Your task to perform on an android device: turn smart compose on in the gmail app Image 0: 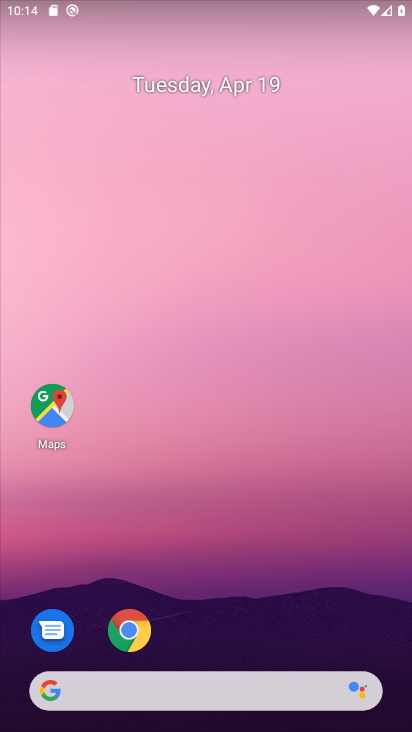
Step 0: drag from (254, 602) to (281, 163)
Your task to perform on an android device: turn smart compose on in the gmail app Image 1: 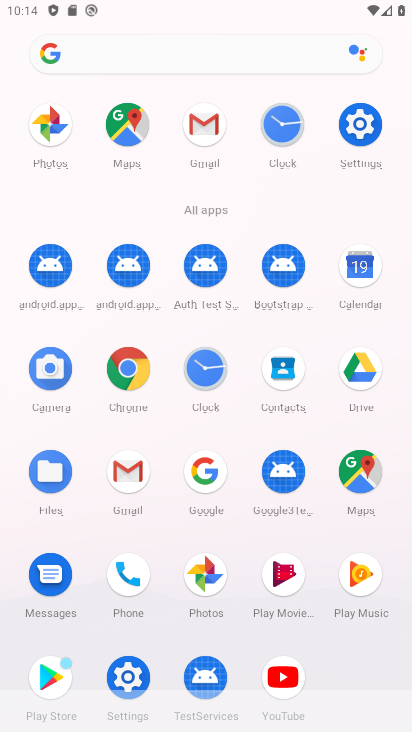
Step 1: click (192, 130)
Your task to perform on an android device: turn smart compose on in the gmail app Image 2: 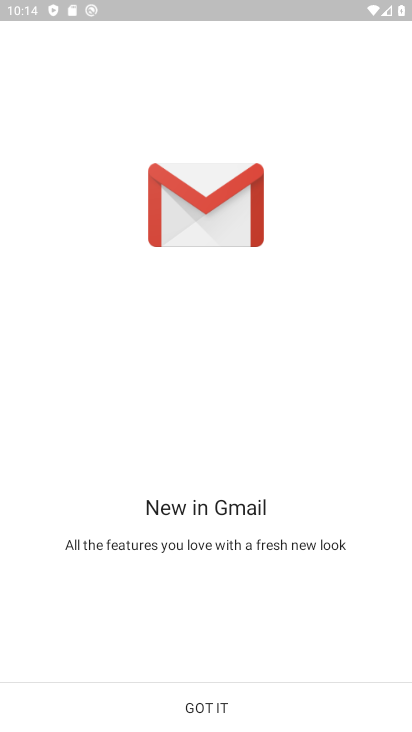
Step 2: click (214, 700)
Your task to perform on an android device: turn smart compose on in the gmail app Image 3: 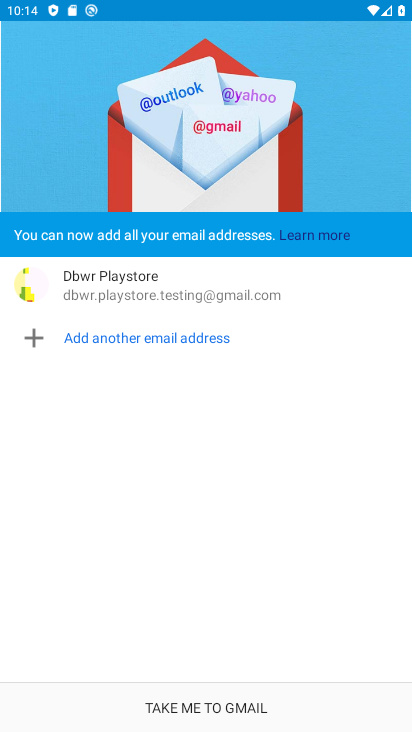
Step 3: click (211, 700)
Your task to perform on an android device: turn smart compose on in the gmail app Image 4: 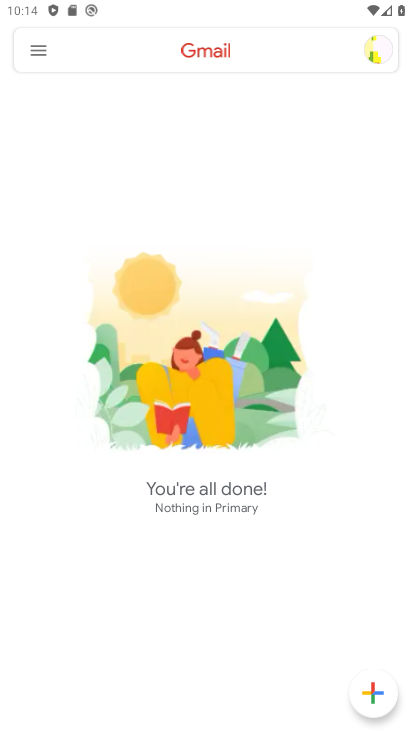
Step 4: click (42, 48)
Your task to perform on an android device: turn smart compose on in the gmail app Image 5: 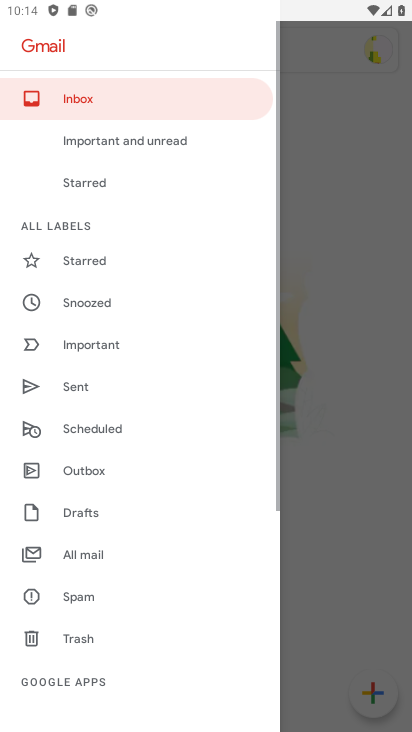
Step 5: drag from (119, 672) to (159, 141)
Your task to perform on an android device: turn smart compose on in the gmail app Image 6: 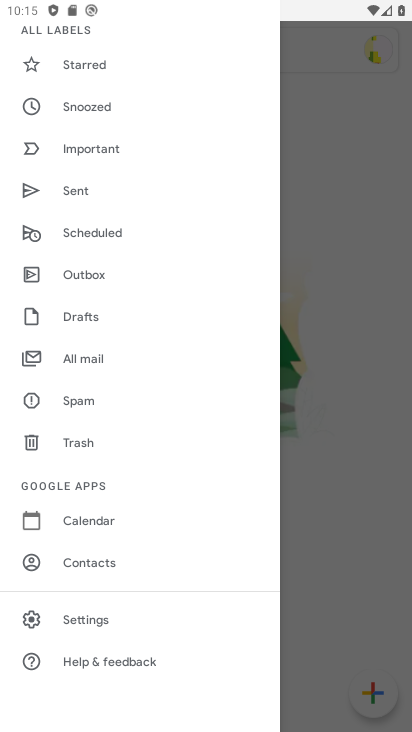
Step 6: click (91, 618)
Your task to perform on an android device: turn smart compose on in the gmail app Image 7: 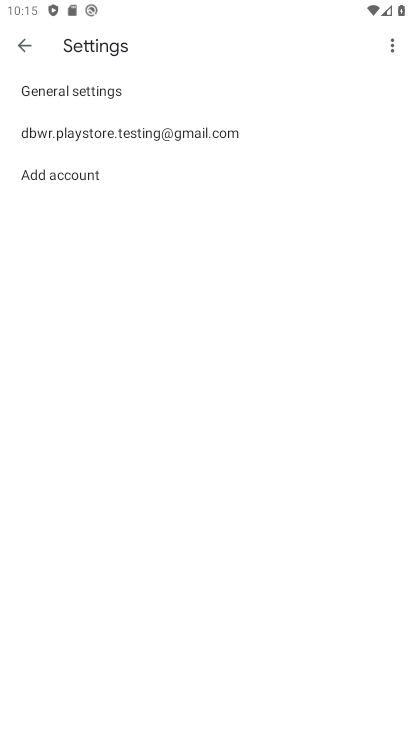
Step 7: click (125, 126)
Your task to perform on an android device: turn smart compose on in the gmail app Image 8: 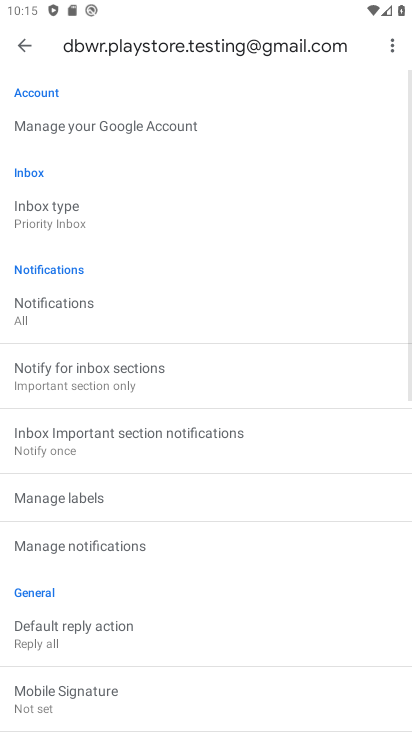
Step 8: drag from (138, 599) to (183, 174)
Your task to perform on an android device: turn smart compose on in the gmail app Image 9: 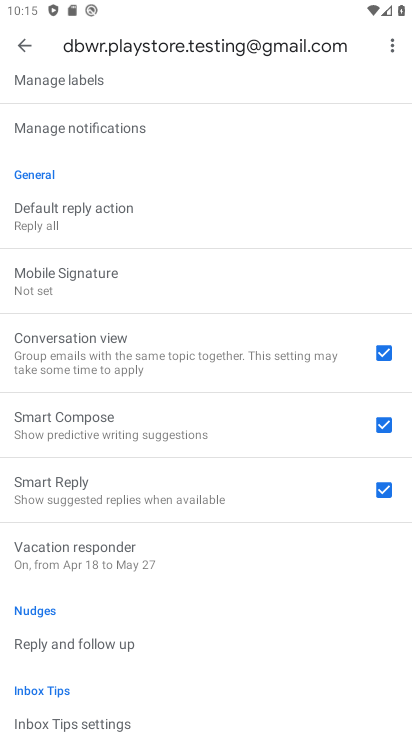
Step 9: click (154, 420)
Your task to perform on an android device: turn smart compose on in the gmail app Image 10: 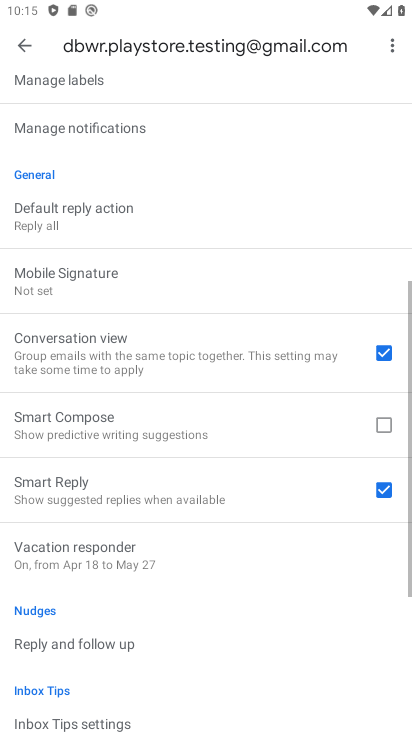
Step 10: click (361, 423)
Your task to perform on an android device: turn smart compose on in the gmail app Image 11: 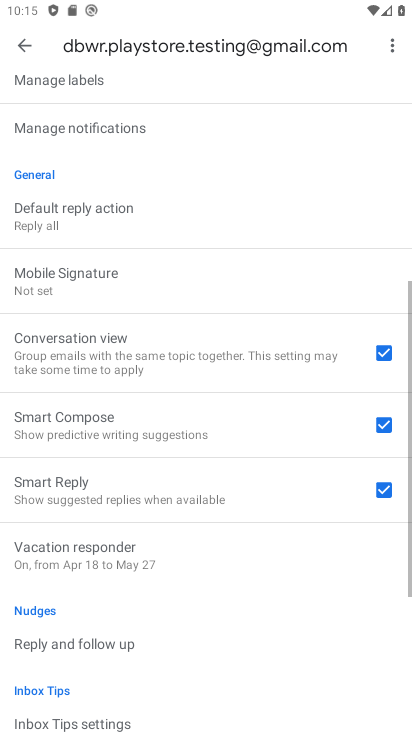
Step 11: task complete